Your task to perform on an android device: Open the Play Movies app and select the watchlist tab. Image 0: 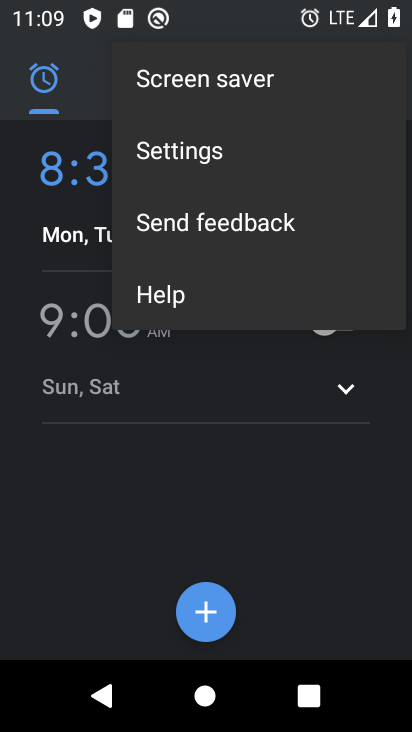
Step 0: click (226, 156)
Your task to perform on an android device: Open the Play Movies app and select the watchlist tab. Image 1: 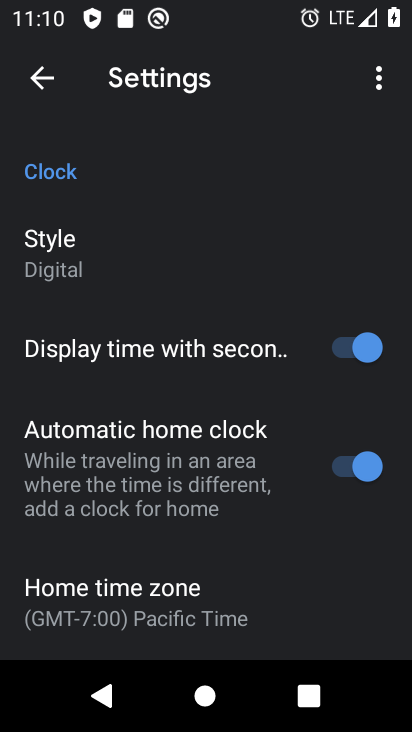
Step 1: press home button
Your task to perform on an android device: Open the Play Movies app and select the watchlist tab. Image 2: 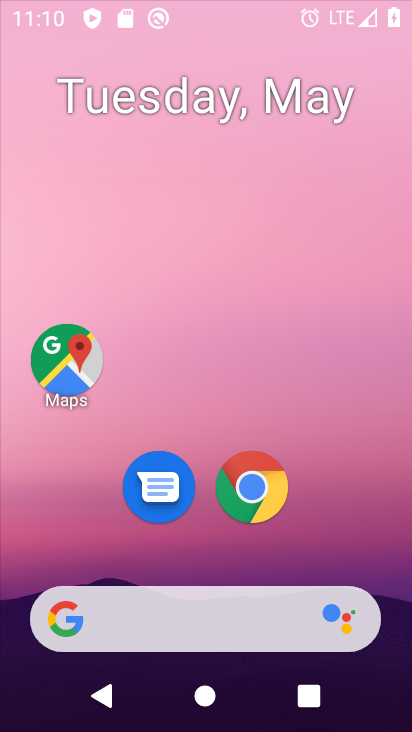
Step 2: drag from (184, 596) to (217, 245)
Your task to perform on an android device: Open the Play Movies app and select the watchlist tab. Image 3: 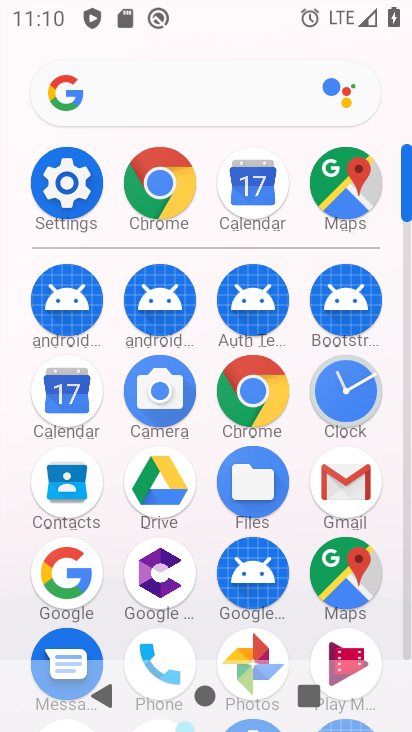
Step 3: click (342, 635)
Your task to perform on an android device: Open the Play Movies app and select the watchlist tab. Image 4: 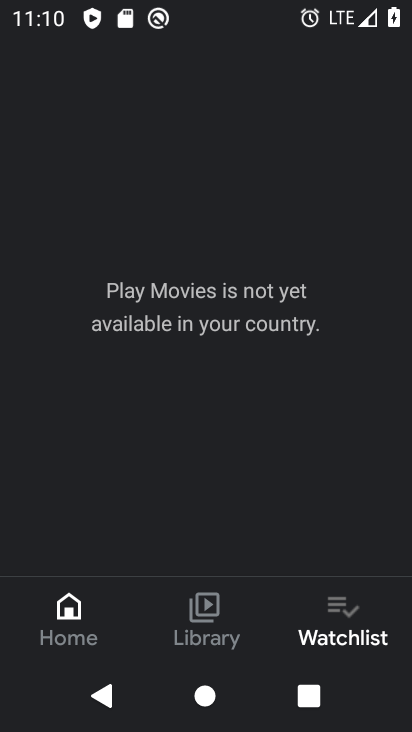
Step 4: click (338, 629)
Your task to perform on an android device: Open the Play Movies app and select the watchlist tab. Image 5: 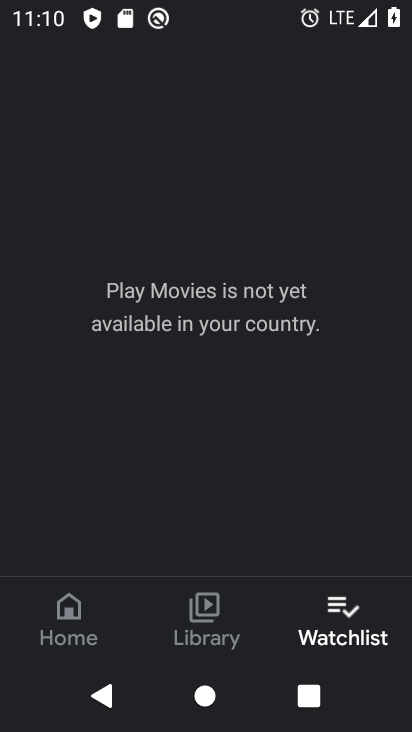
Step 5: task complete